Your task to perform on an android device: toggle translation in the chrome app Image 0: 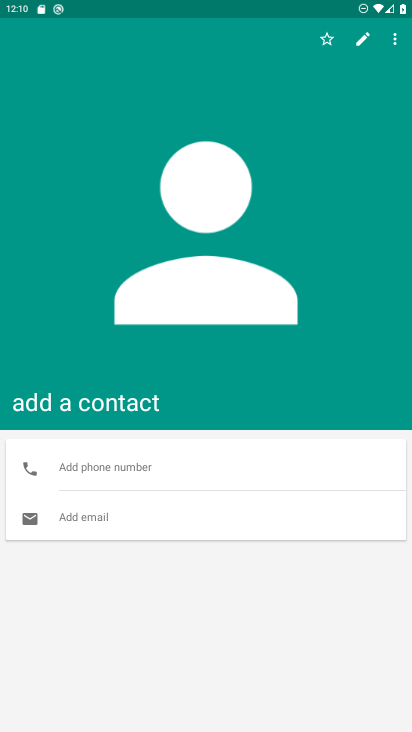
Step 0: click (171, 614)
Your task to perform on an android device: toggle translation in the chrome app Image 1: 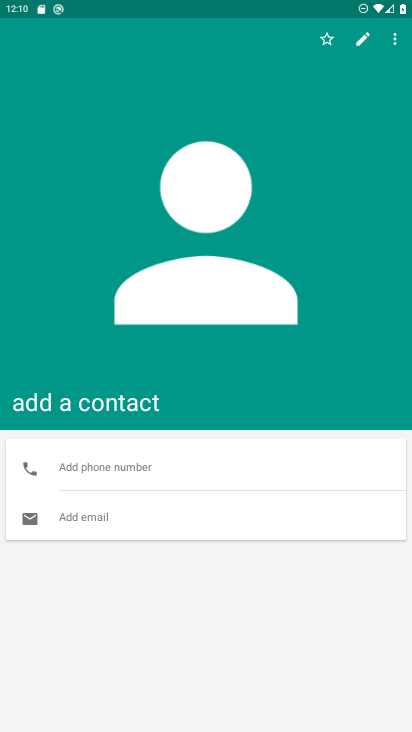
Step 1: click (166, 624)
Your task to perform on an android device: toggle translation in the chrome app Image 2: 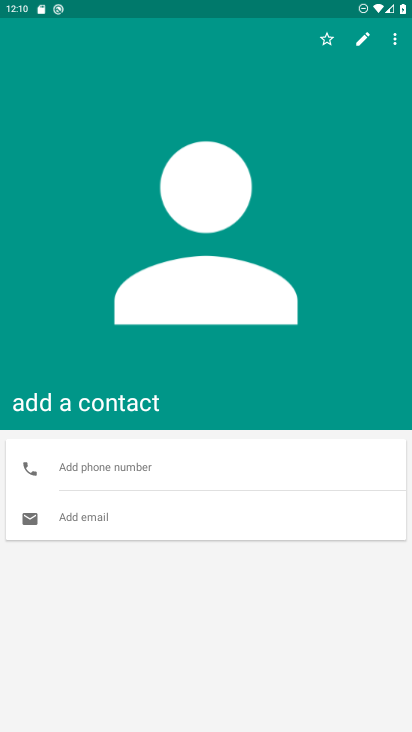
Step 2: press home button
Your task to perform on an android device: toggle translation in the chrome app Image 3: 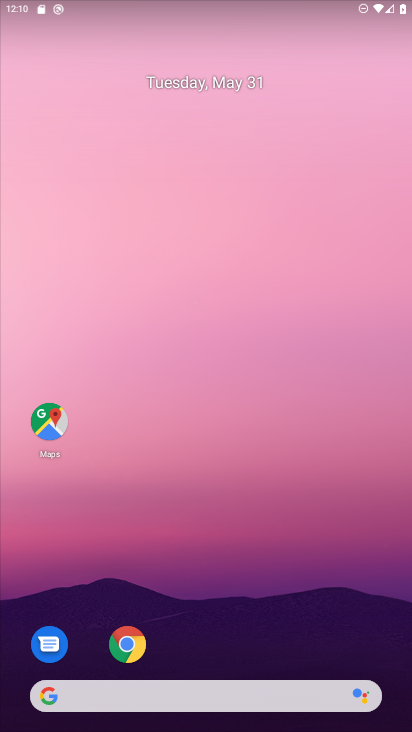
Step 3: drag from (170, 630) to (252, 146)
Your task to perform on an android device: toggle translation in the chrome app Image 4: 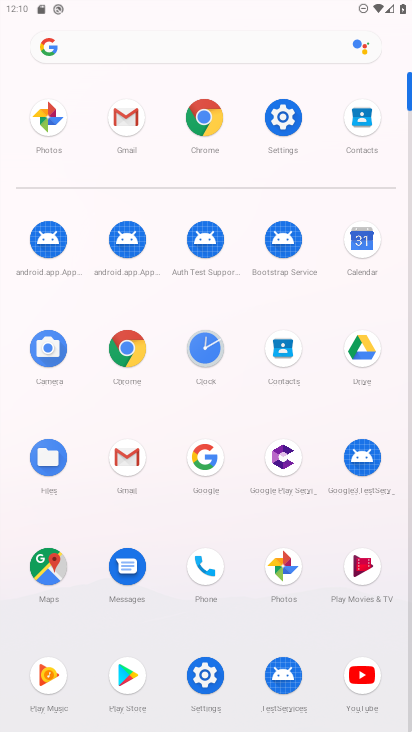
Step 4: click (124, 336)
Your task to perform on an android device: toggle translation in the chrome app Image 5: 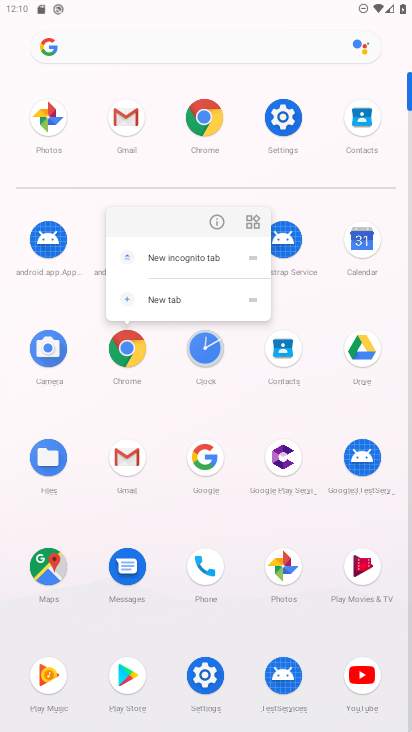
Step 5: click (211, 220)
Your task to perform on an android device: toggle translation in the chrome app Image 6: 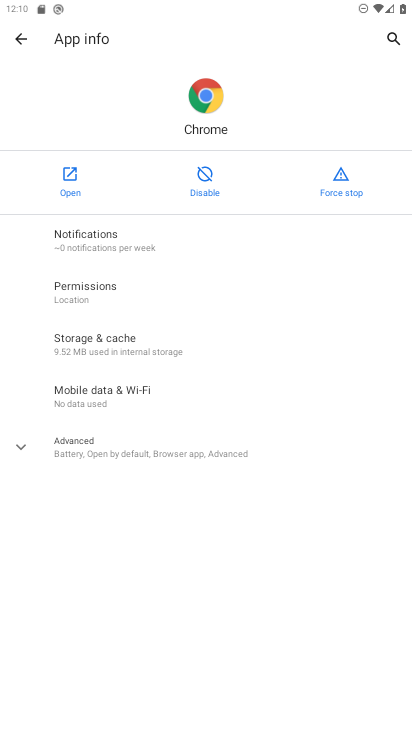
Step 6: click (97, 169)
Your task to perform on an android device: toggle translation in the chrome app Image 7: 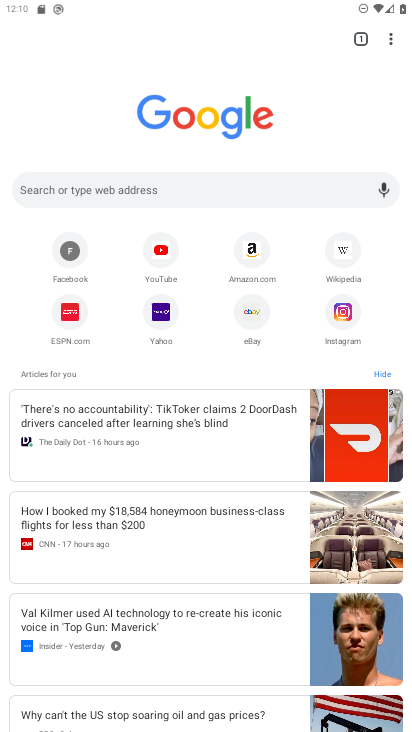
Step 7: drag from (388, 40) to (265, 370)
Your task to perform on an android device: toggle translation in the chrome app Image 8: 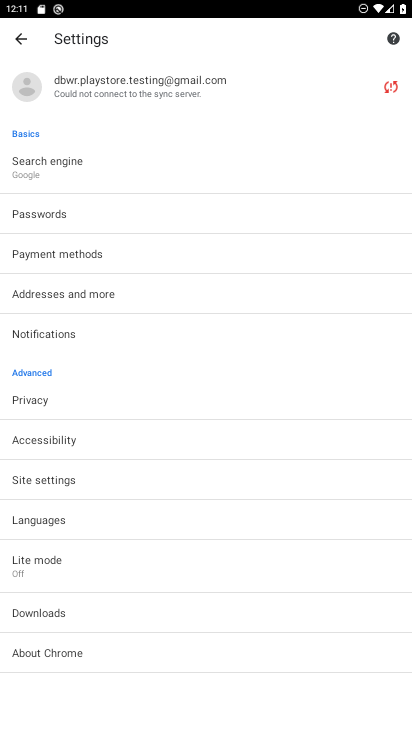
Step 8: click (73, 520)
Your task to perform on an android device: toggle translation in the chrome app Image 9: 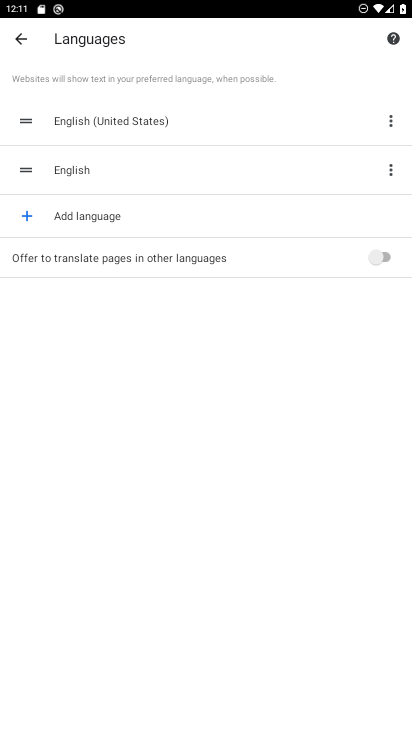
Step 9: click (367, 259)
Your task to perform on an android device: toggle translation in the chrome app Image 10: 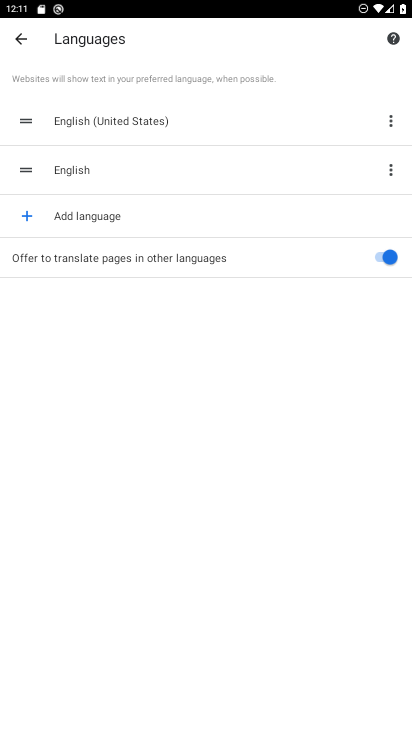
Step 10: task complete